Your task to perform on an android device: change keyboard looks Image 0: 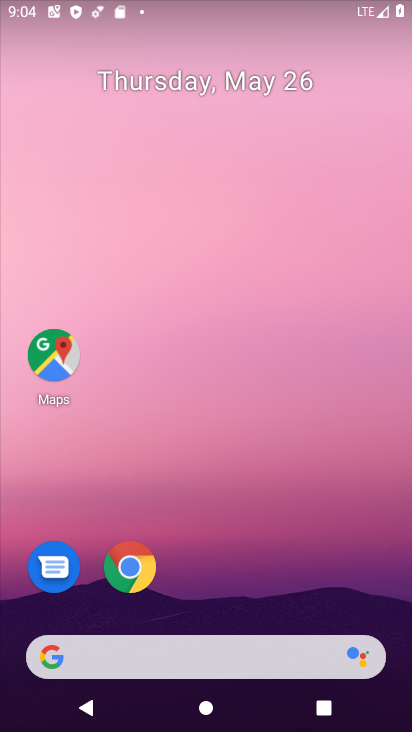
Step 0: click (169, 653)
Your task to perform on an android device: change keyboard looks Image 1: 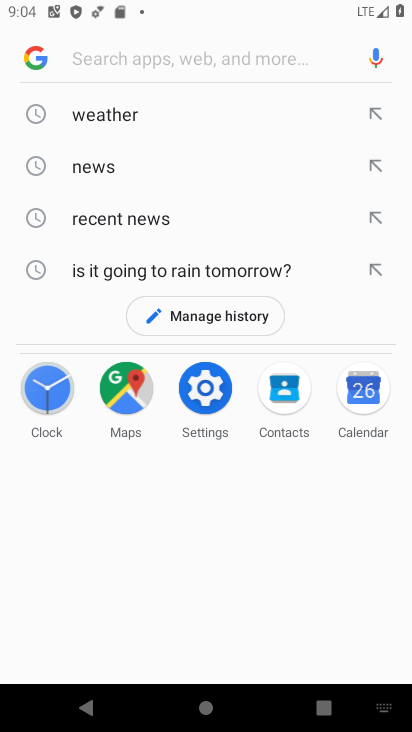
Step 1: press home button
Your task to perform on an android device: change keyboard looks Image 2: 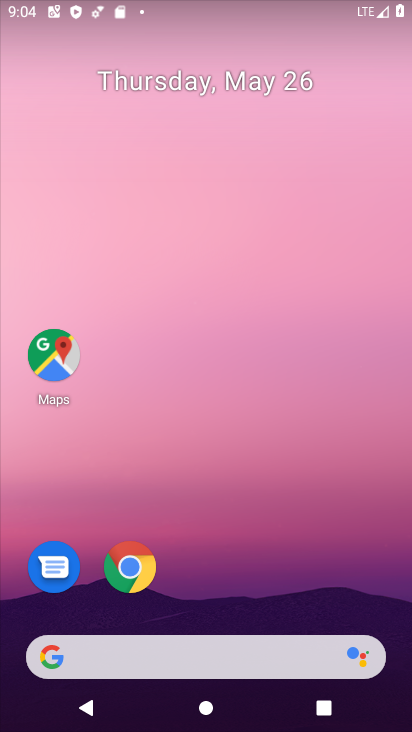
Step 2: drag from (250, 663) to (202, 44)
Your task to perform on an android device: change keyboard looks Image 3: 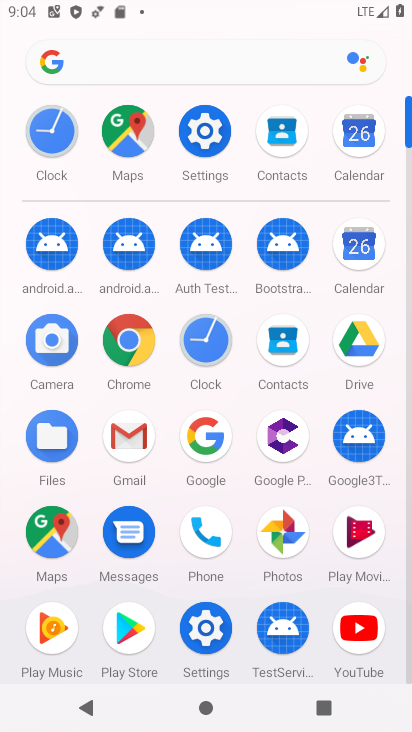
Step 3: click (204, 127)
Your task to perform on an android device: change keyboard looks Image 4: 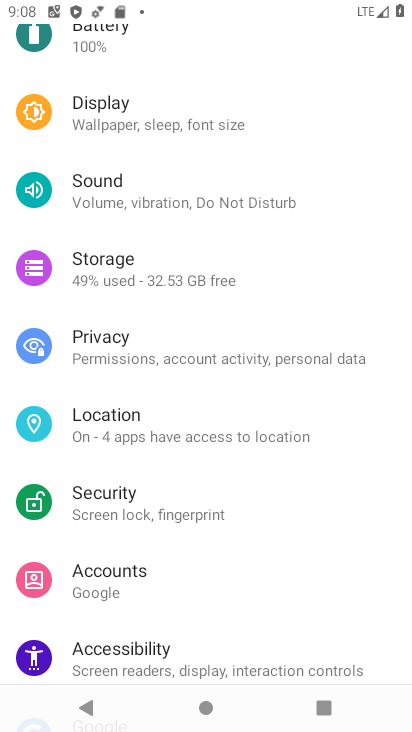
Step 4: drag from (184, 609) to (166, 8)
Your task to perform on an android device: change keyboard looks Image 5: 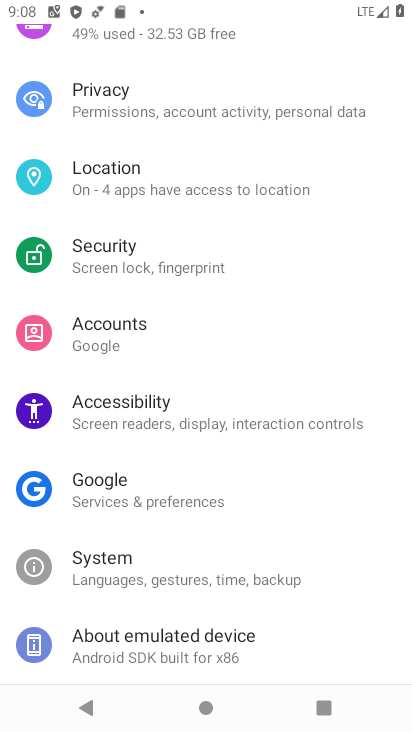
Step 5: drag from (325, 156) to (262, 622)
Your task to perform on an android device: change keyboard looks Image 6: 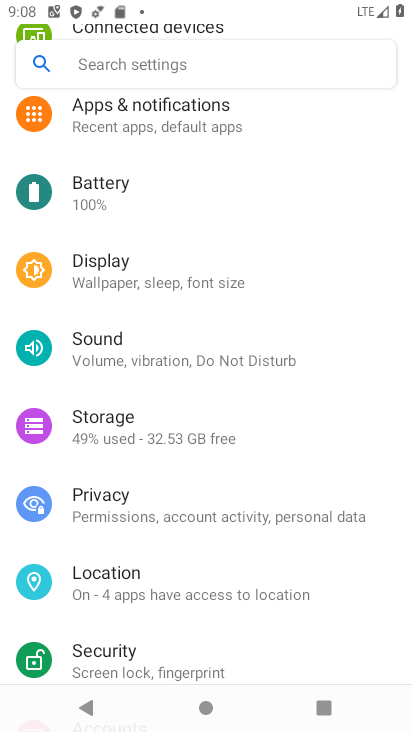
Step 6: drag from (245, 222) to (159, 705)
Your task to perform on an android device: change keyboard looks Image 7: 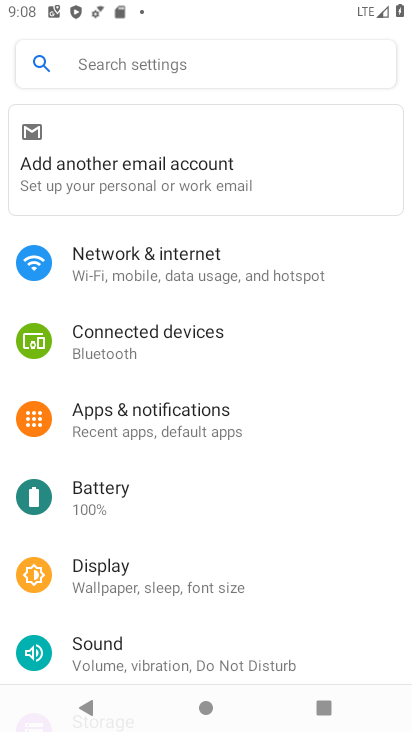
Step 7: drag from (310, 618) to (279, 143)
Your task to perform on an android device: change keyboard looks Image 8: 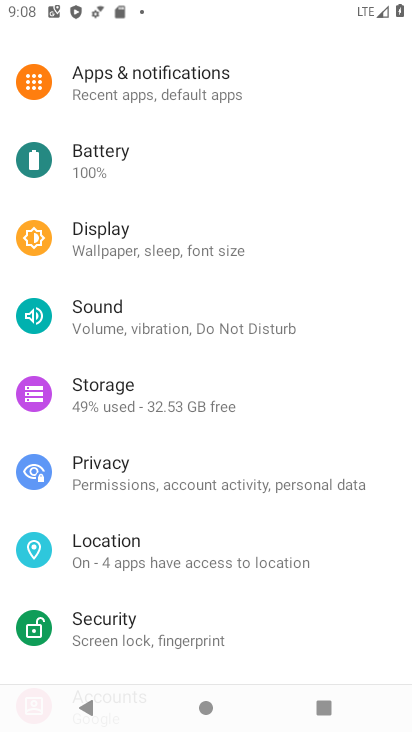
Step 8: drag from (254, 576) to (283, 1)
Your task to perform on an android device: change keyboard looks Image 9: 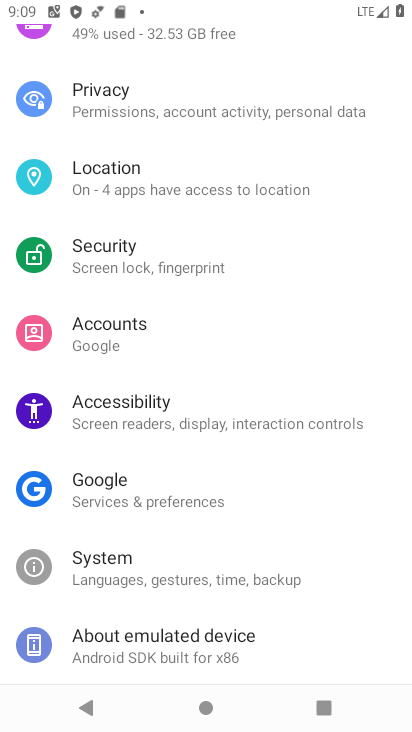
Step 9: click (178, 584)
Your task to perform on an android device: change keyboard looks Image 10: 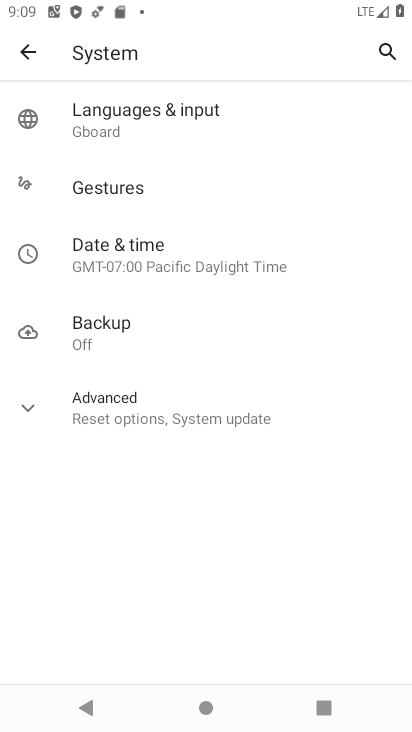
Step 10: click (93, 122)
Your task to perform on an android device: change keyboard looks Image 11: 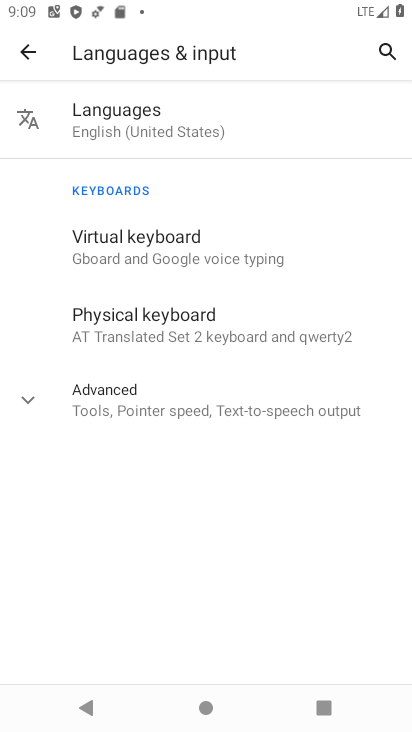
Step 11: click (230, 255)
Your task to perform on an android device: change keyboard looks Image 12: 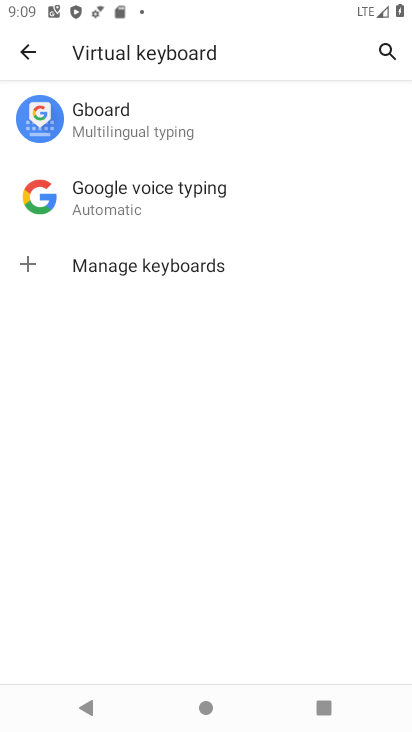
Step 12: click (171, 124)
Your task to perform on an android device: change keyboard looks Image 13: 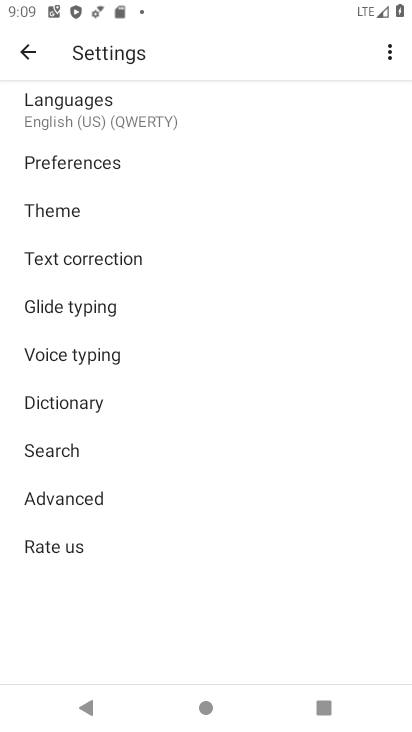
Step 13: drag from (60, 205) to (24, 205)
Your task to perform on an android device: change keyboard looks Image 14: 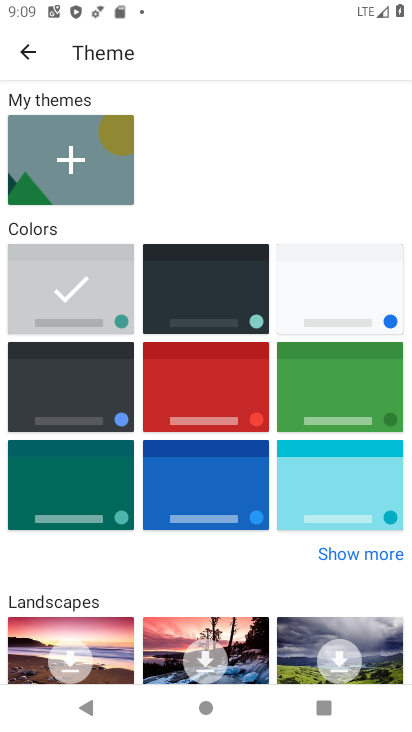
Step 14: click (208, 491)
Your task to perform on an android device: change keyboard looks Image 15: 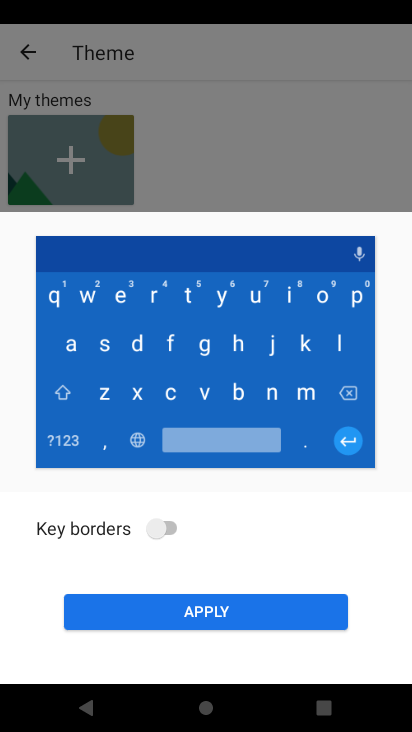
Step 15: click (255, 608)
Your task to perform on an android device: change keyboard looks Image 16: 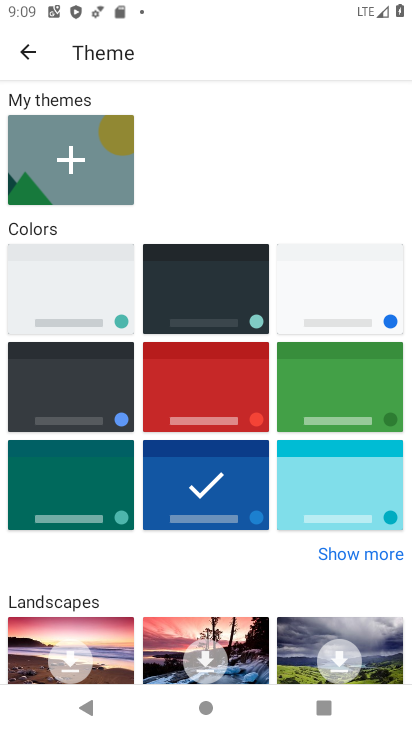
Step 16: task complete